Your task to perform on an android device: Open Google Maps Image 0: 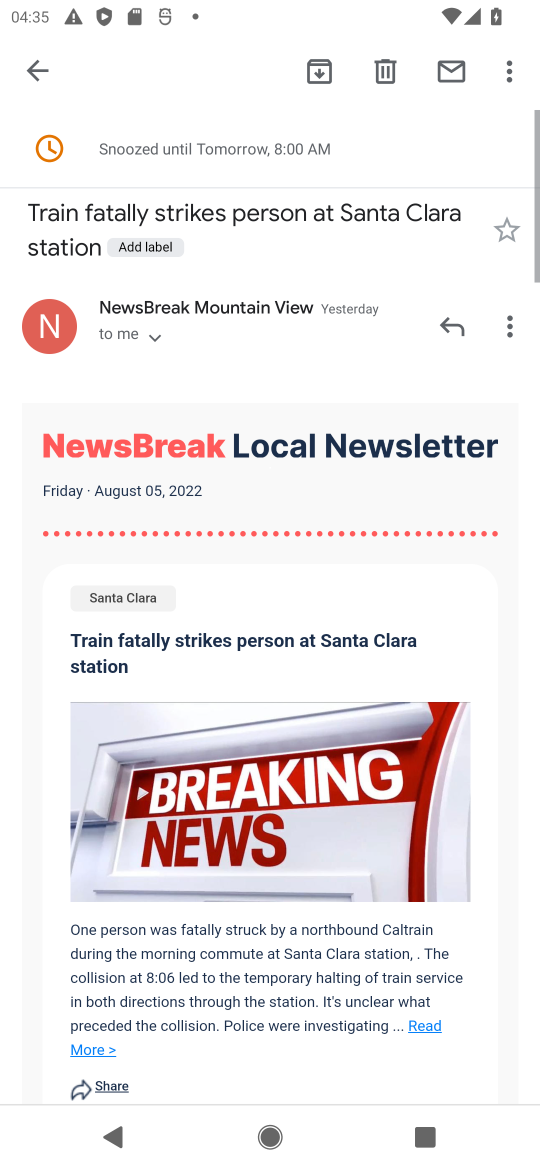
Step 0: press home button
Your task to perform on an android device: Open Google Maps Image 1: 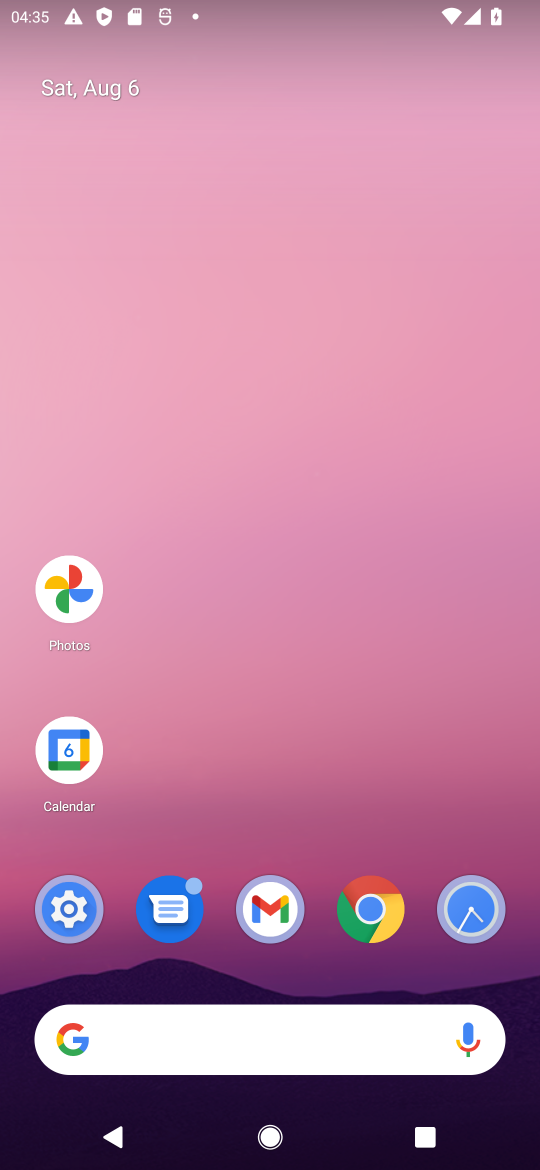
Step 1: drag from (259, 811) to (205, 298)
Your task to perform on an android device: Open Google Maps Image 2: 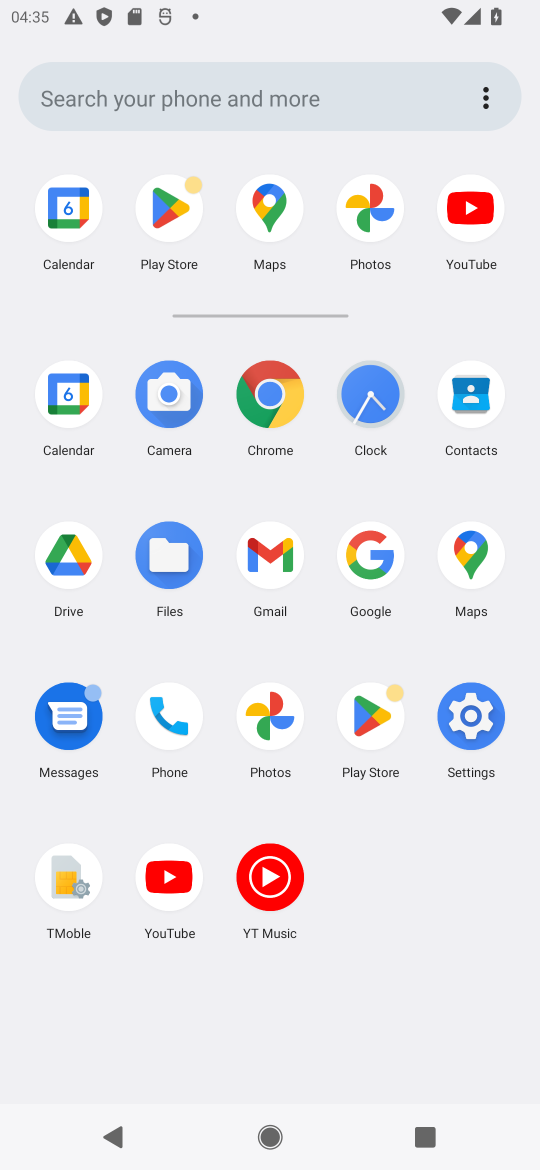
Step 2: click (260, 196)
Your task to perform on an android device: Open Google Maps Image 3: 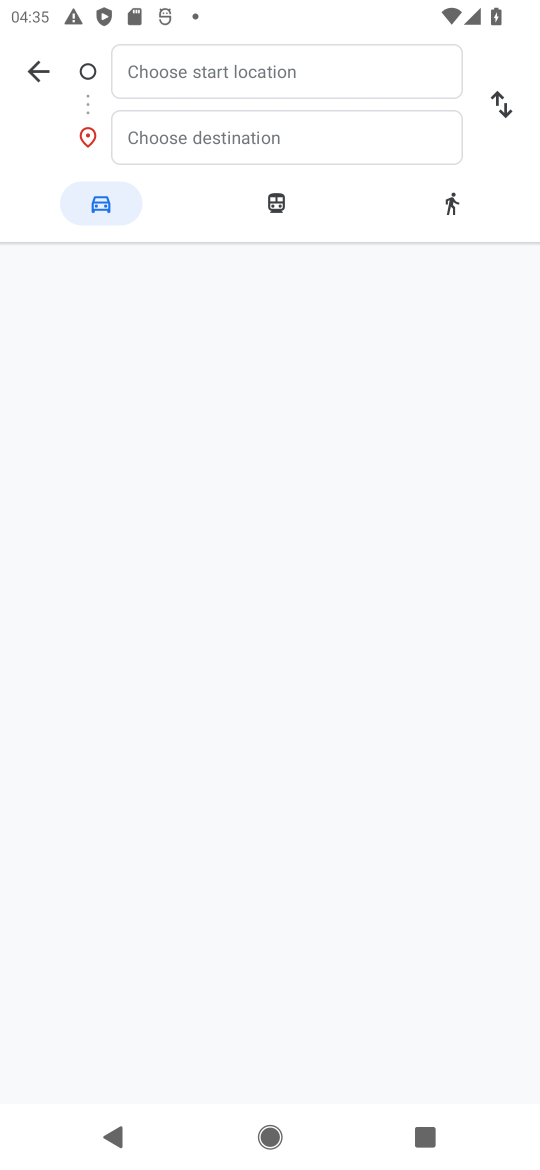
Step 3: click (29, 73)
Your task to perform on an android device: Open Google Maps Image 4: 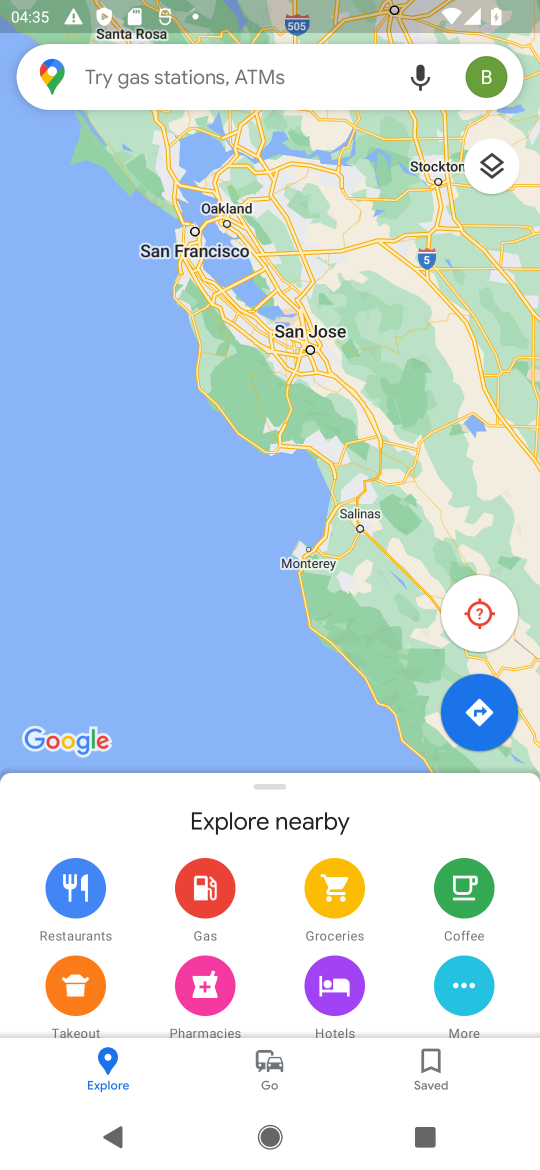
Step 4: task complete